Your task to perform on an android device: delete location history Image 0: 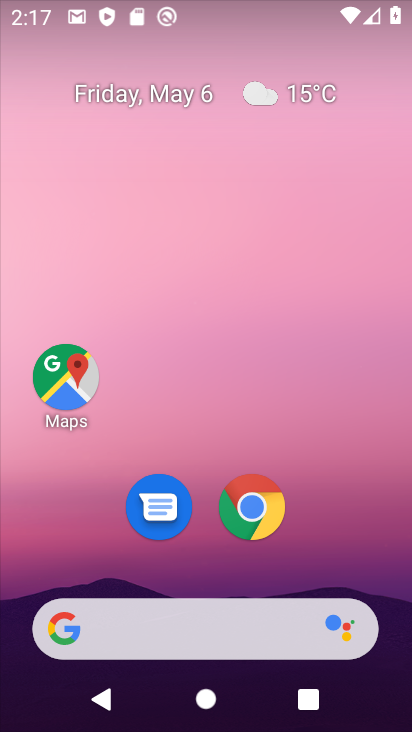
Step 0: click (72, 388)
Your task to perform on an android device: delete location history Image 1: 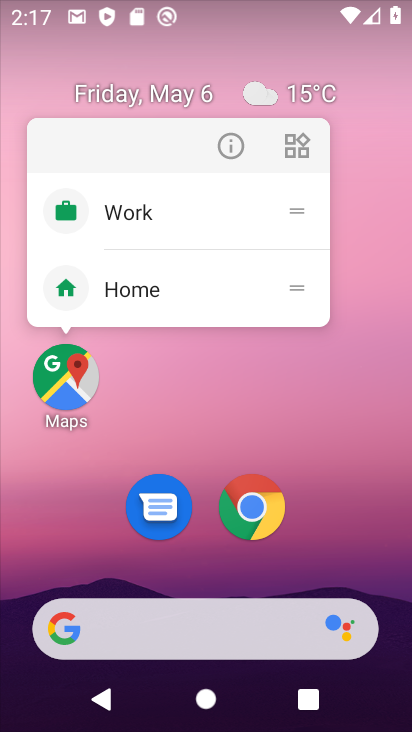
Step 1: click (79, 393)
Your task to perform on an android device: delete location history Image 2: 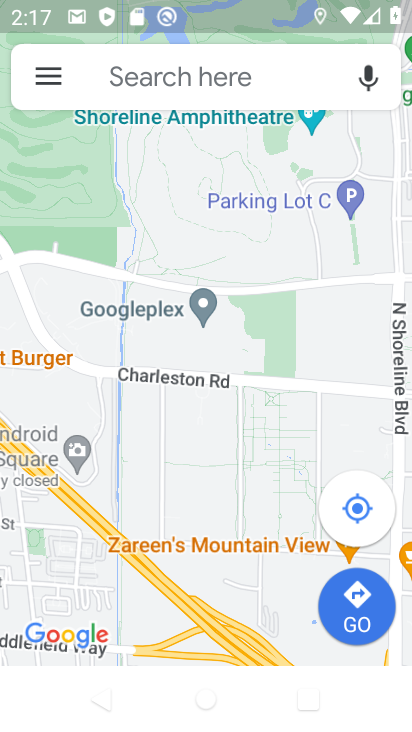
Step 2: click (48, 82)
Your task to perform on an android device: delete location history Image 3: 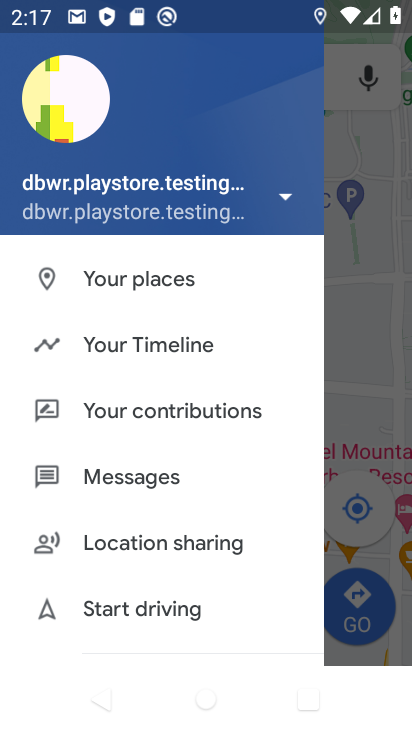
Step 3: drag from (101, 601) to (210, 182)
Your task to perform on an android device: delete location history Image 4: 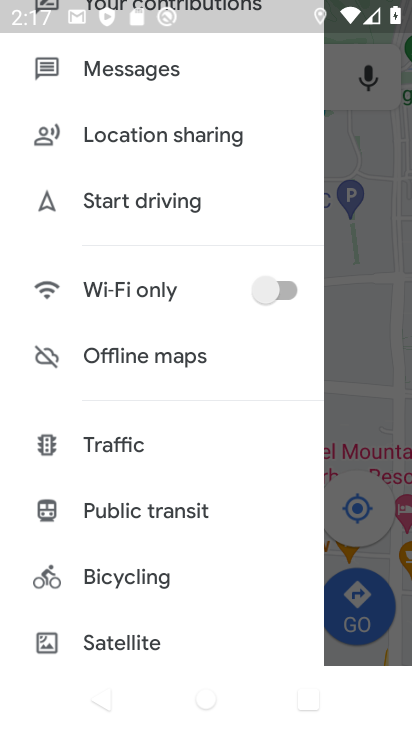
Step 4: drag from (201, 629) to (216, 233)
Your task to perform on an android device: delete location history Image 5: 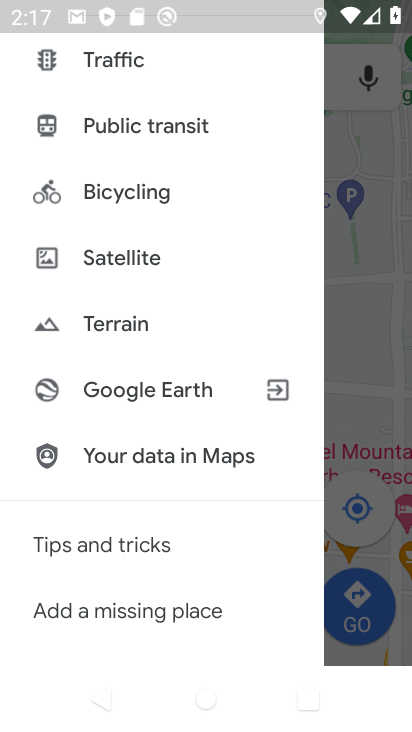
Step 5: drag from (141, 651) to (149, 278)
Your task to perform on an android device: delete location history Image 6: 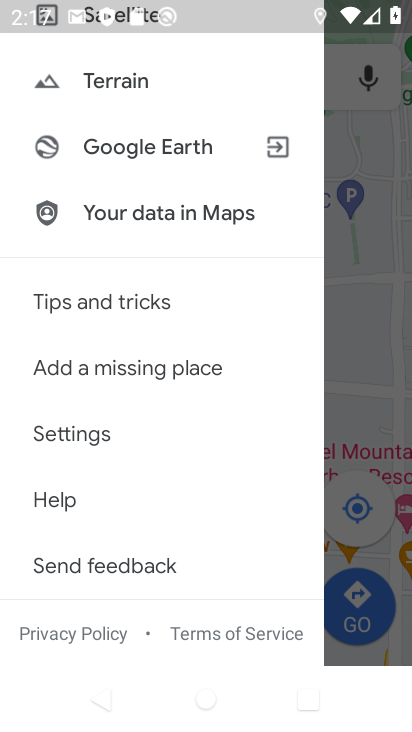
Step 6: click (96, 433)
Your task to perform on an android device: delete location history Image 7: 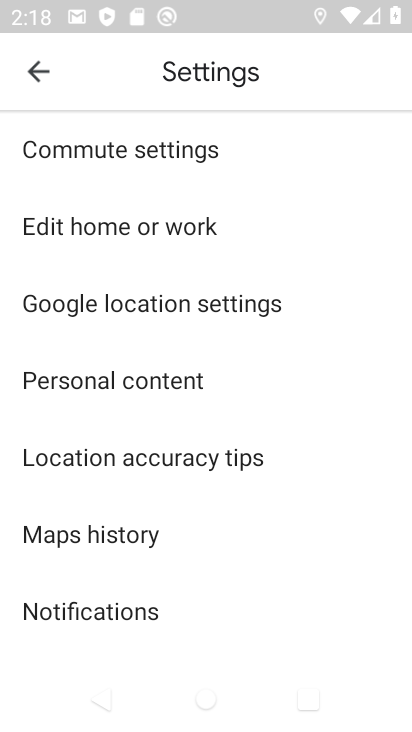
Step 7: click (167, 314)
Your task to perform on an android device: delete location history Image 8: 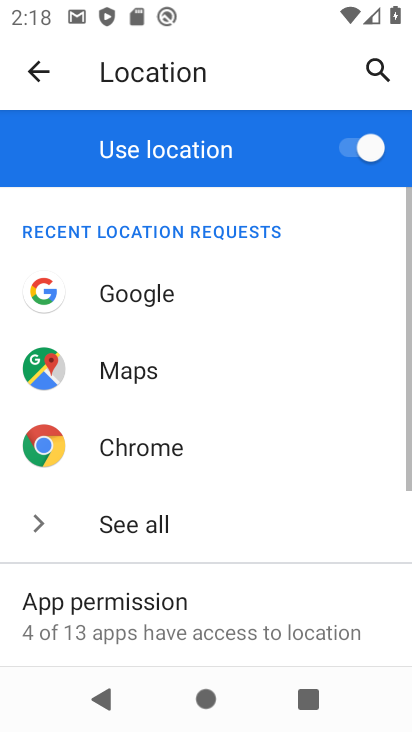
Step 8: drag from (261, 579) to (292, 222)
Your task to perform on an android device: delete location history Image 9: 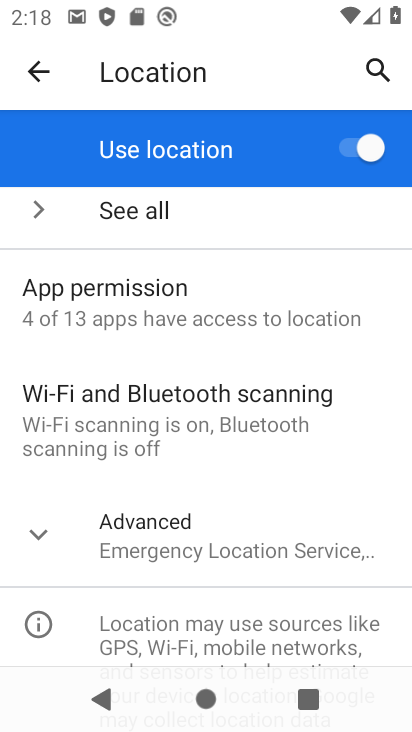
Step 9: drag from (208, 535) to (212, 220)
Your task to perform on an android device: delete location history Image 10: 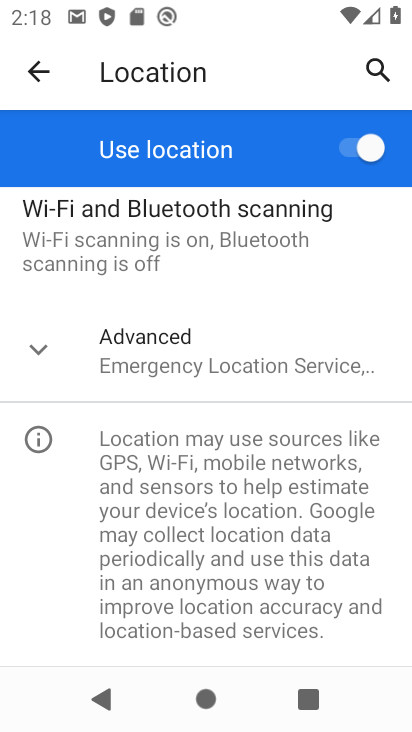
Step 10: click (44, 354)
Your task to perform on an android device: delete location history Image 11: 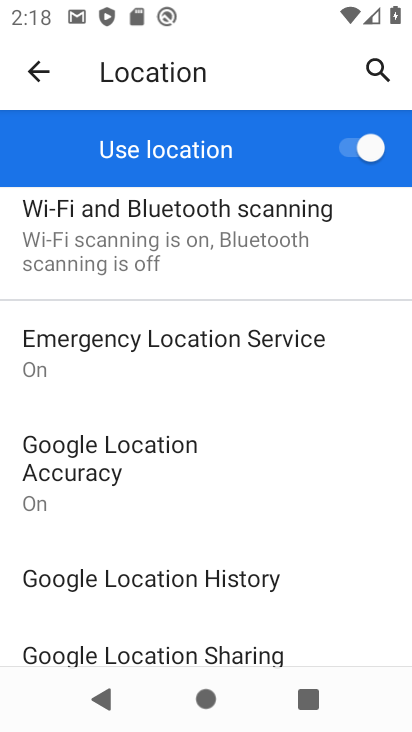
Step 11: click (192, 594)
Your task to perform on an android device: delete location history Image 12: 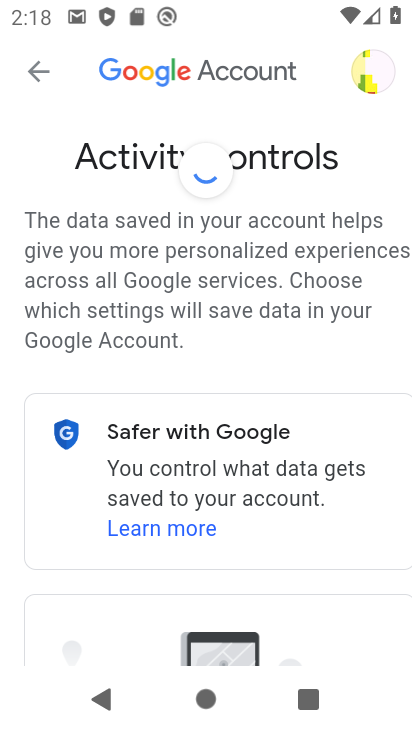
Step 12: drag from (236, 579) to (357, 201)
Your task to perform on an android device: delete location history Image 13: 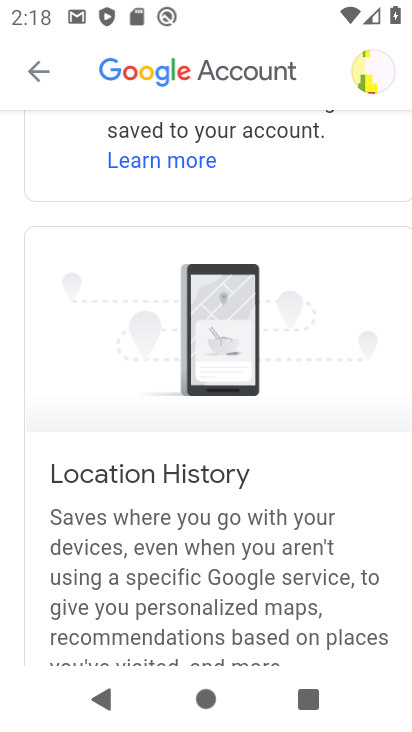
Step 13: drag from (348, 593) to (358, 196)
Your task to perform on an android device: delete location history Image 14: 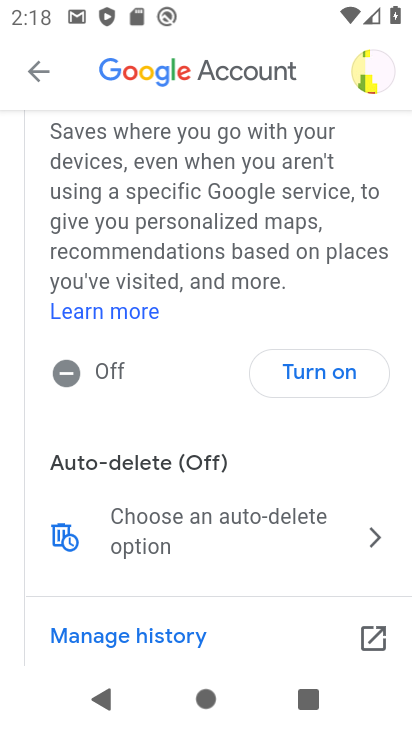
Step 14: drag from (256, 555) to (272, 273)
Your task to perform on an android device: delete location history Image 15: 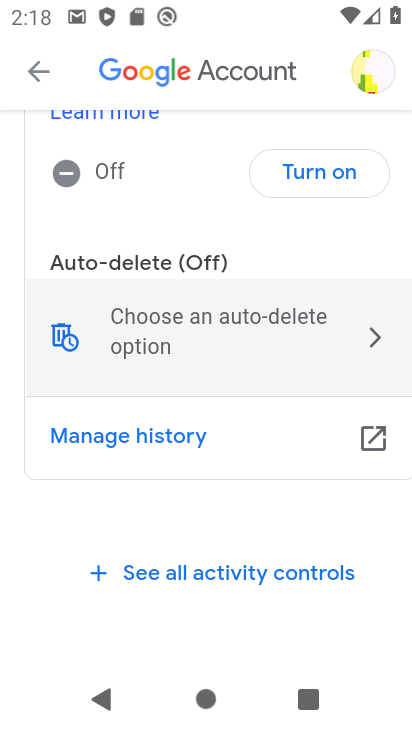
Step 15: drag from (289, 240) to (250, 492)
Your task to perform on an android device: delete location history Image 16: 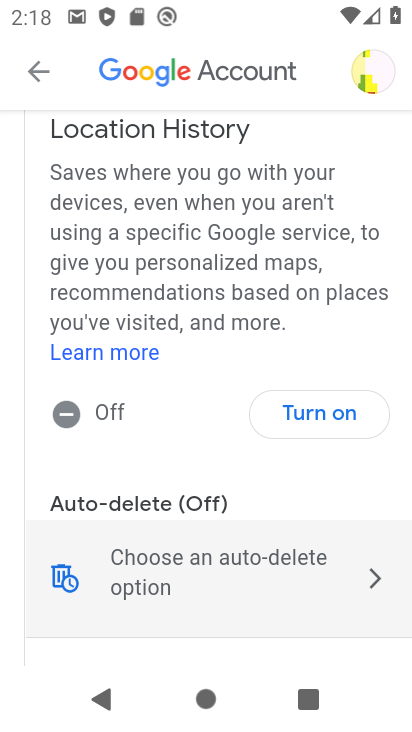
Step 16: click (323, 416)
Your task to perform on an android device: delete location history Image 17: 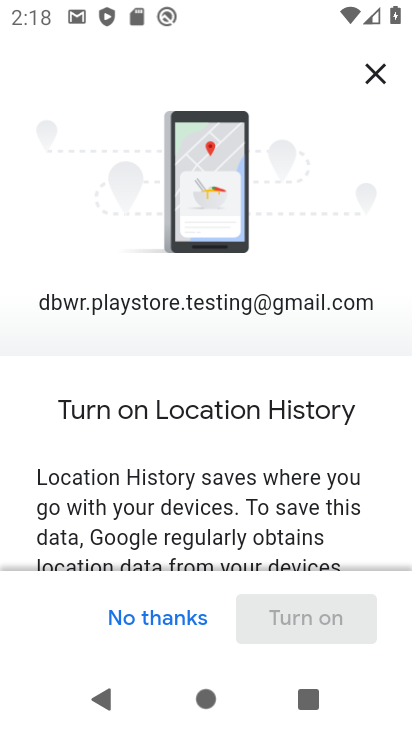
Step 17: drag from (261, 502) to (287, 45)
Your task to perform on an android device: delete location history Image 18: 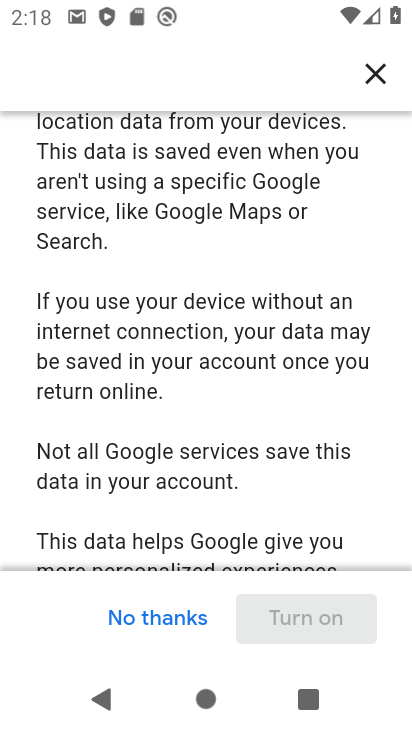
Step 18: drag from (208, 502) to (222, 130)
Your task to perform on an android device: delete location history Image 19: 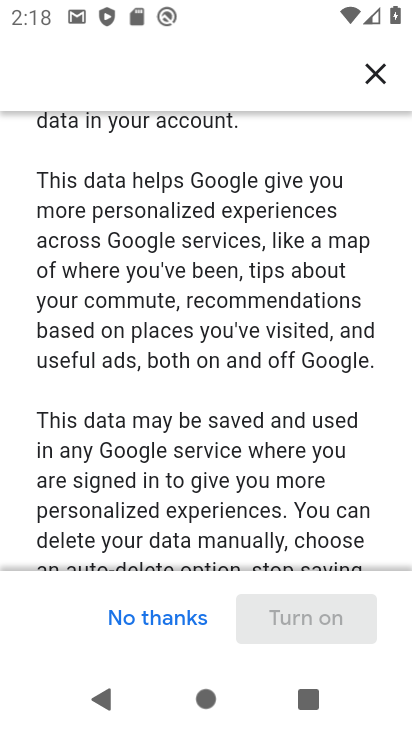
Step 19: drag from (219, 463) to (219, 172)
Your task to perform on an android device: delete location history Image 20: 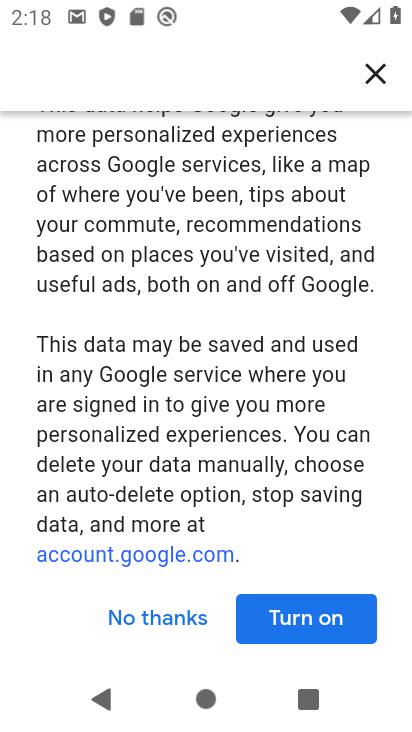
Step 20: click (287, 609)
Your task to perform on an android device: delete location history Image 21: 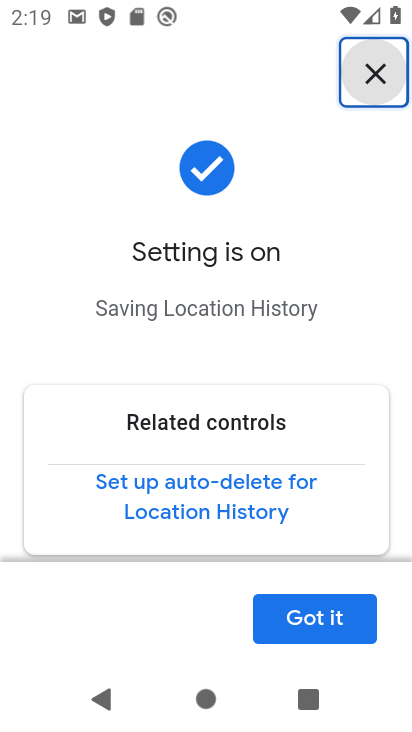
Step 21: click (303, 634)
Your task to perform on an android device: delete location history Image 22: 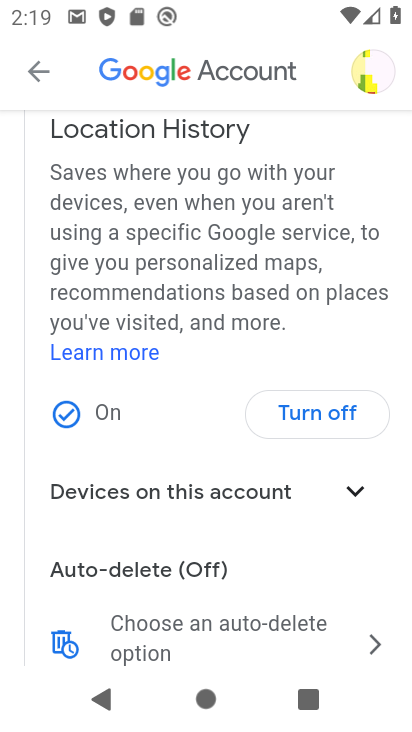
Step 22: task complete